Your task to perform on an android device: Go to ESPN.com Image 0: 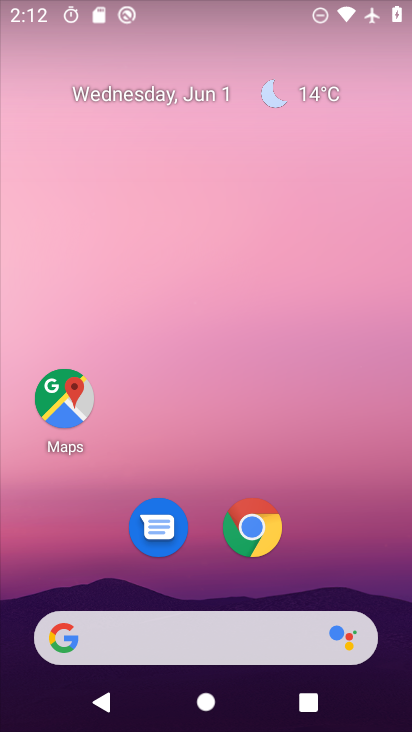
Step 0: click (238, 382)
Your task to perform on an android device: Go to ESPN.com Image 1: 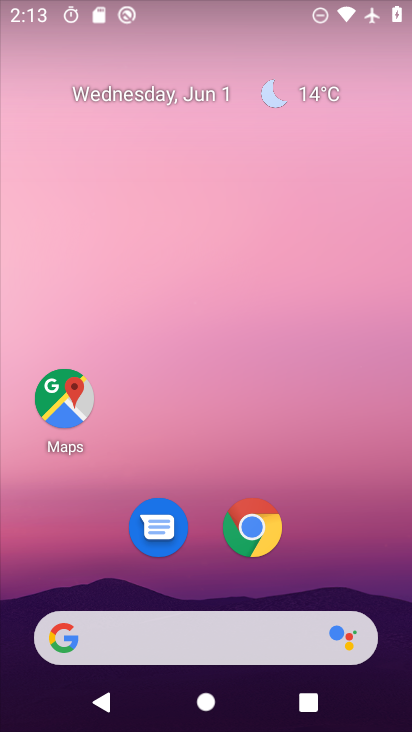
Step 1: drag from (208, 542) to (238, 308)
Your task to perform on an android device: Go to ESPN.com Image 2: 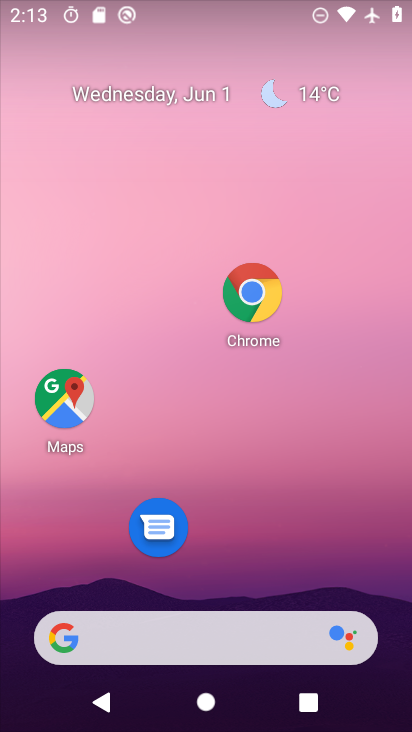
Step 2: click (247, 327)
Your task to perform on an android device: Go to ESPN.com Image 3: 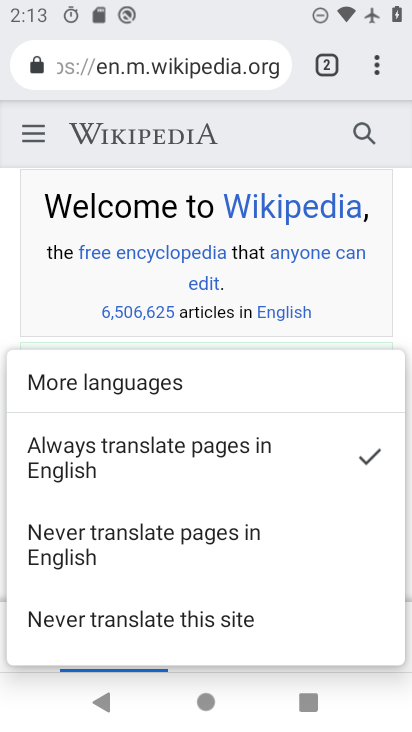
Step 3: click (260, 68)
Your task to perform on an android device: Go to ESPN.com Image 4: 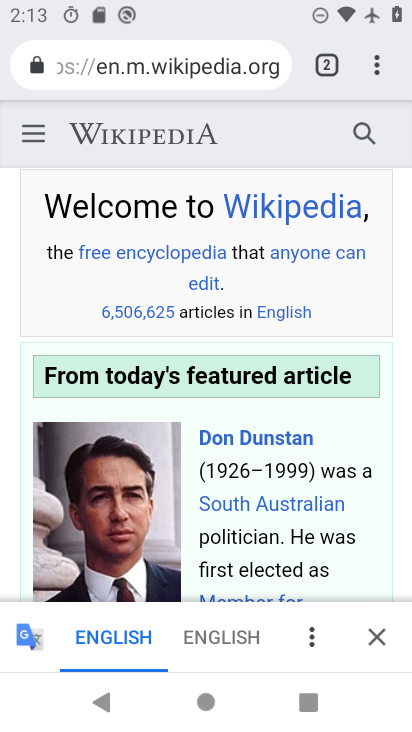
Step 4: click (244, 64)
Your task to perform on an android device: Go to ESPN.com Image 5: 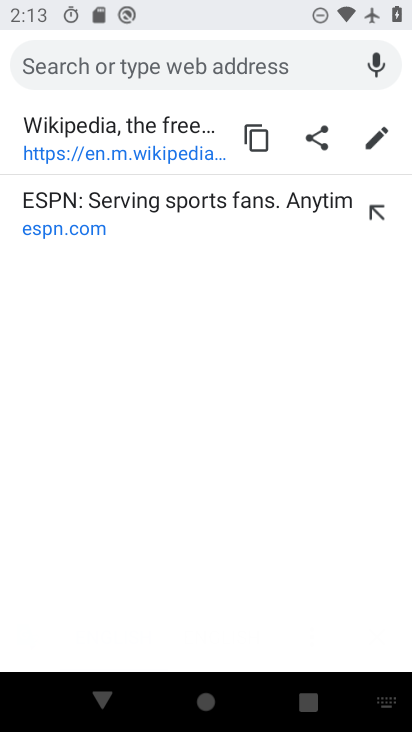
Step 5: click (128, 214)
Your task to perform on an android device: Go to ESPN.com Image 6: 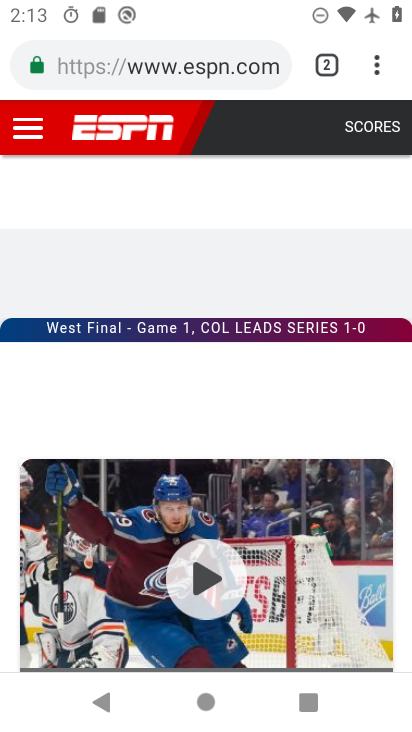
Step 6: press home button
Your task to perform on an android device: Go to ESPN.com Image 7: 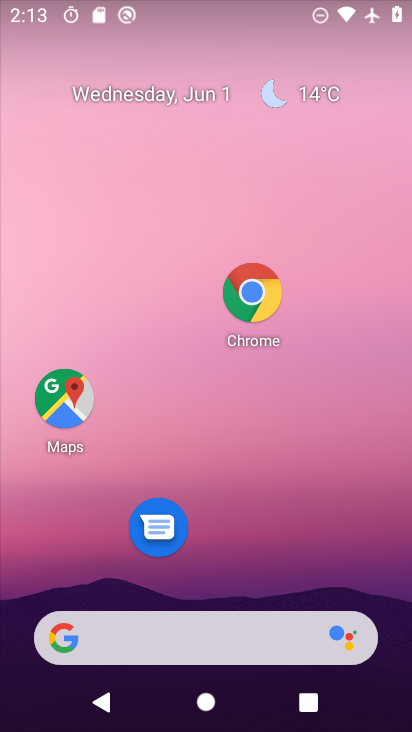
Step 7: drag from (244, 412) to (244, 317)
Your task to perform on an android device: Go to ESPN.com Image 8: 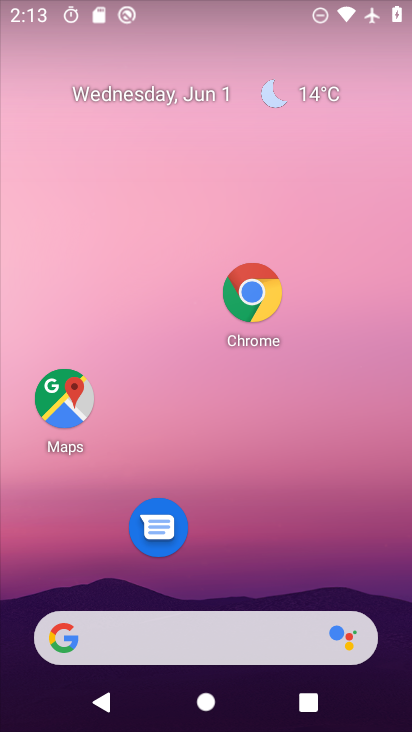
Step 8: click (257, 311)
Your task to perform on an android device: Go to ESPN.com Image 9: 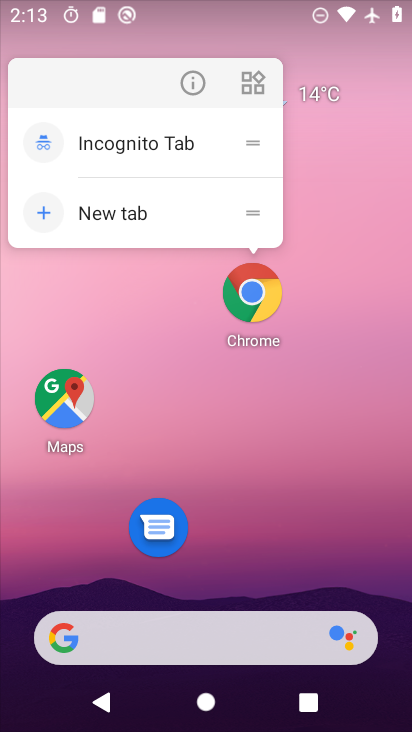
Step 9: click (263, 318)
Your task to perform on an android device: Go to ESPN.com Image 10: 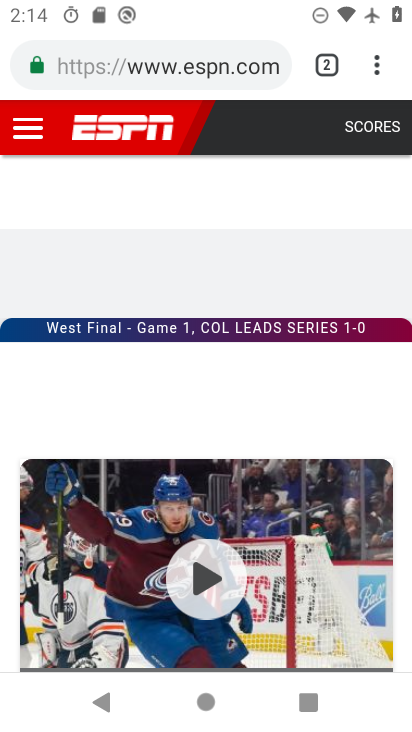
Step 10: task complete